Your task to perform on an android device: Open Chrome and go to the settings page Image 0: 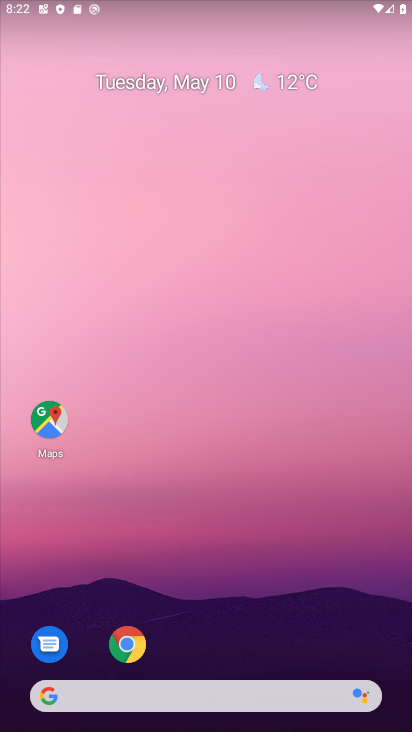
Step 0: click (129, 647)
Your task to perform on an android device: Open Chrome and go to the settings page Image 1: 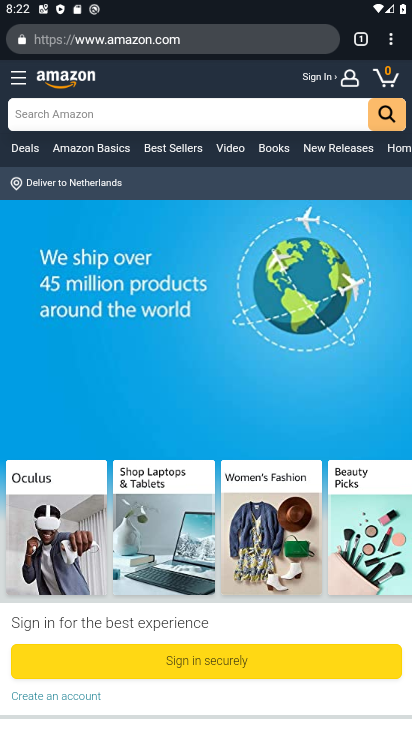
Step 1: click (388, 40)
Your task to perform on an android device: Open Chrome and go to the settings page Image 2: 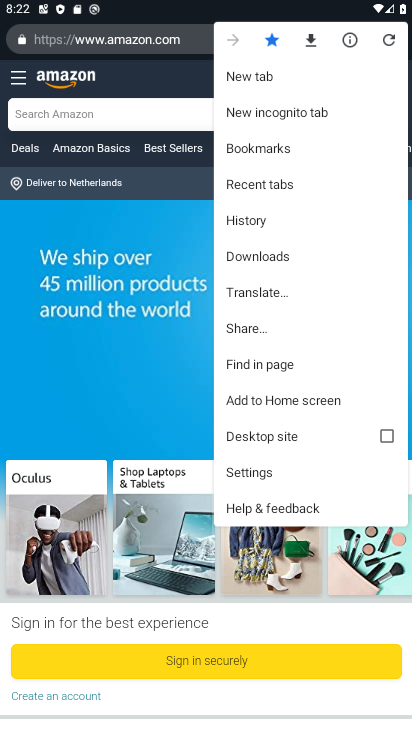
Step 2: click (248, 463)
Your task to perform on an android device: Open Chrome and go to the settings page Image 3: 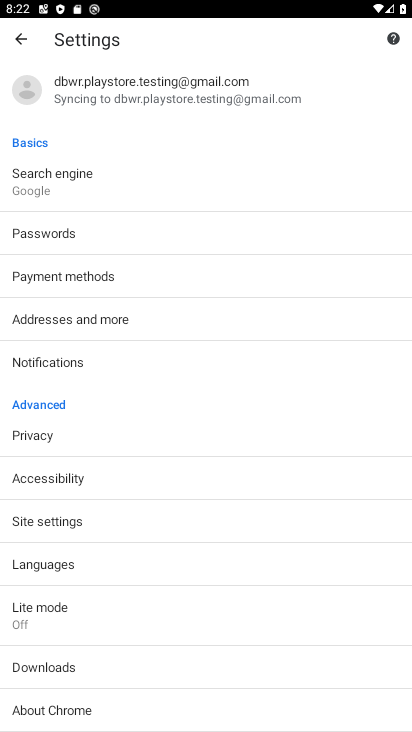
Step 3: task complete